Your task to perform on an android device: Go to accessibility settings Image 0: 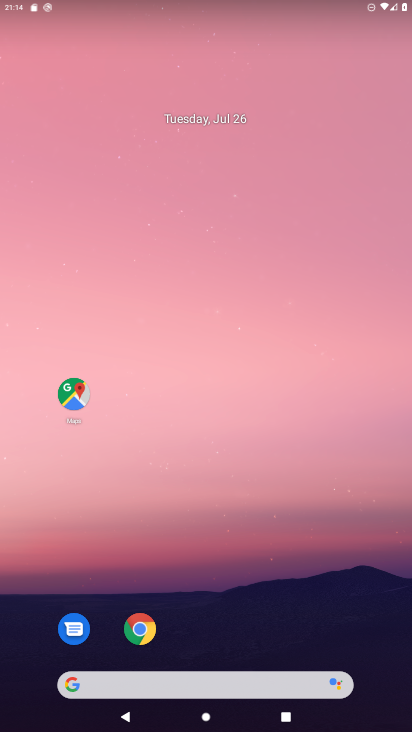
Step 0: press home button
Your task to perform on an android device: Go to accessibility settings Image 1: 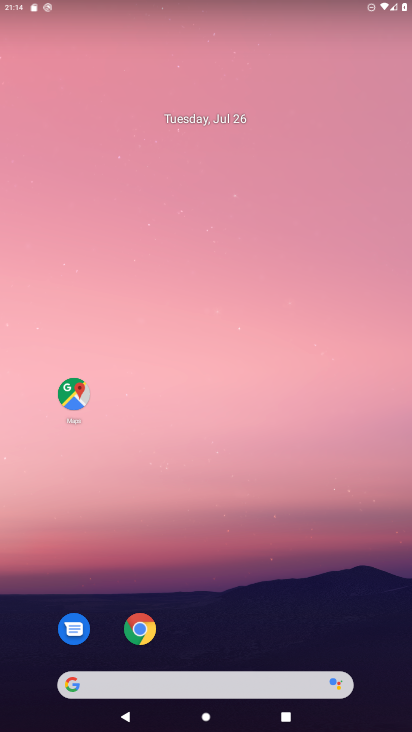
Step 1: drag from (348, 585) to (322, 23)
Your task to perform on an android device: Go to accessibility settings Image 2: 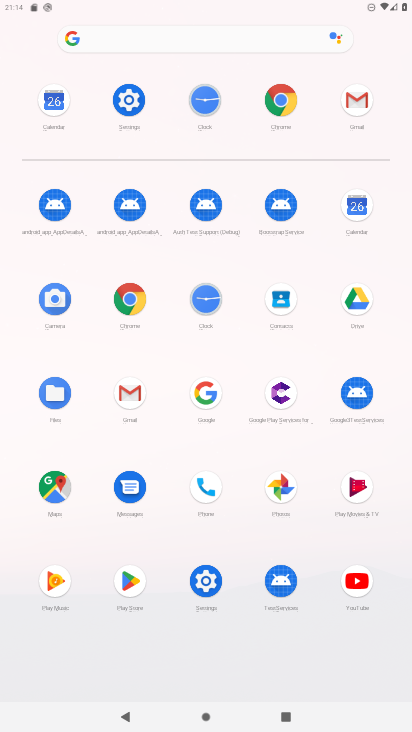
Step 2: click (217, 581)
Your task to perform on an android device: Go to accessibility settings Image 3: 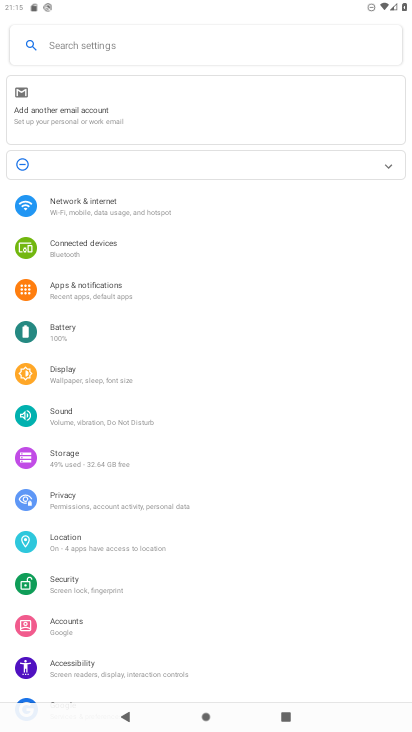
Step 3: drag from (171, 620) to (169, 235)
Your task to perform on an android device: Go to accessibility settings Image 4: 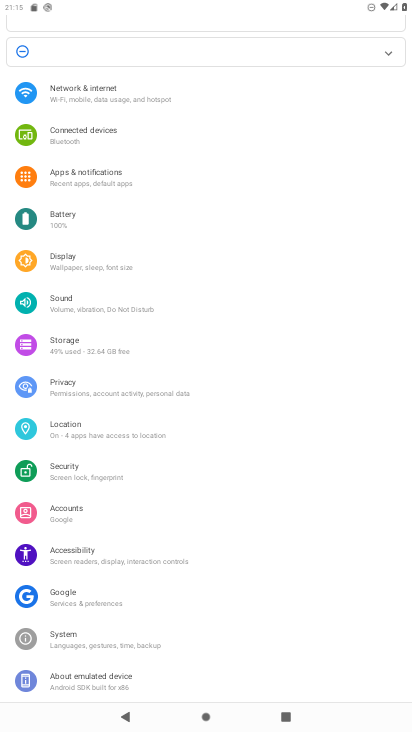
Step 4: click (85, 547)
Your task to perform on an android device: Go to accessibility settings Image 5: 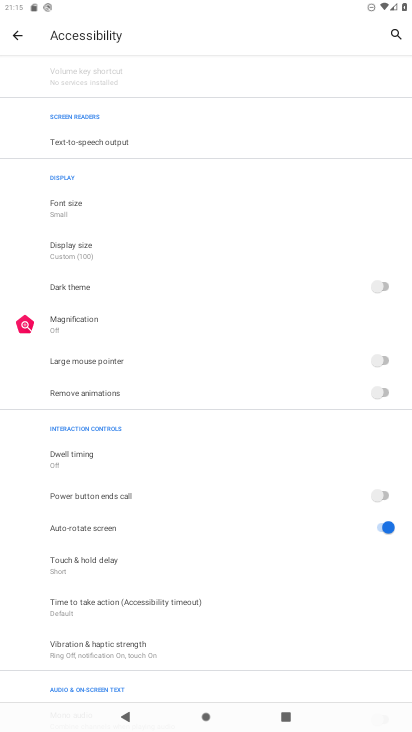
Step 5: task complete